Your task to perform on an android device: Go to settings Image 0: 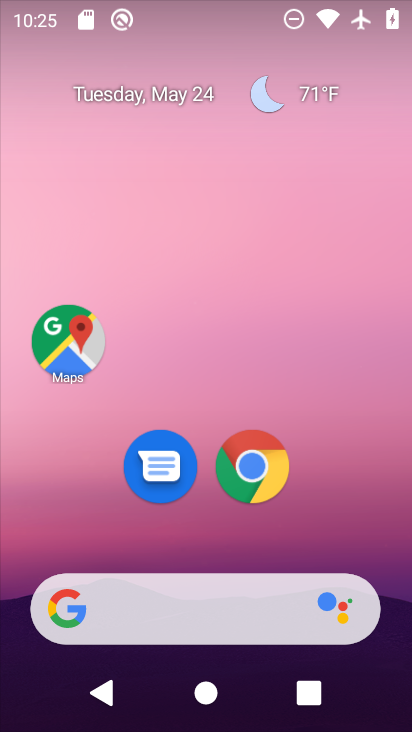
Step 0: drag from (216, 564) to (284, 155)
Your task to perform on an android device: Go to settings Image 1: 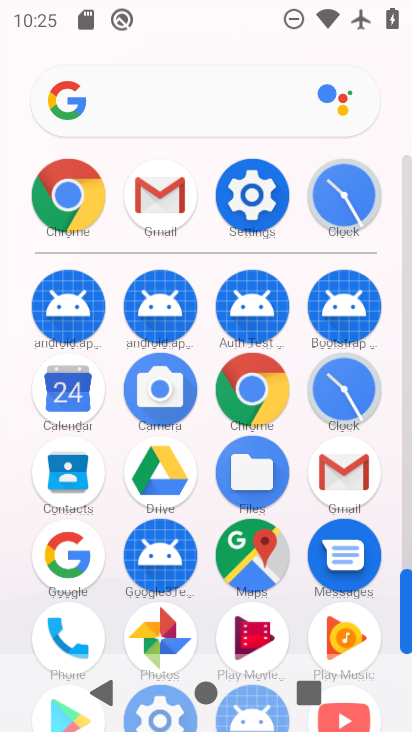
Step 1: click (244, 211)
Your task to perform on an android device: Go to settings Image 2: 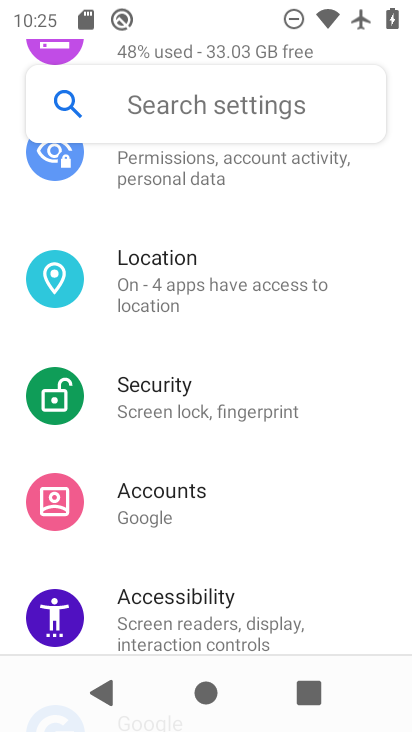
Step 2: task complete